Your task to perform on an android device: change notification settings in the gmail app Image 0: 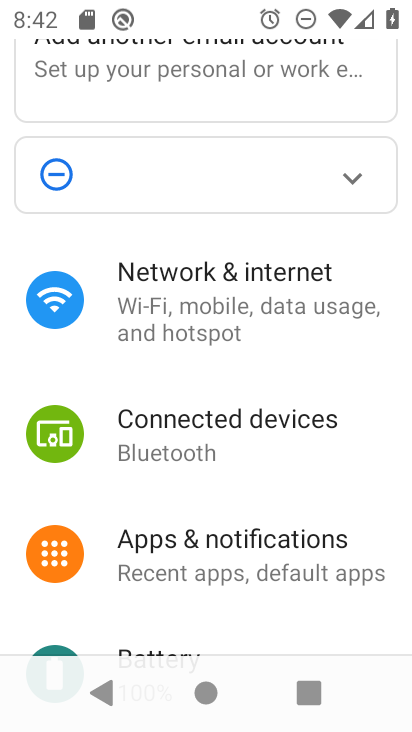
Step 0: press home button
Your task to perform on an android device: change notification settings in the gmail app Image 1: 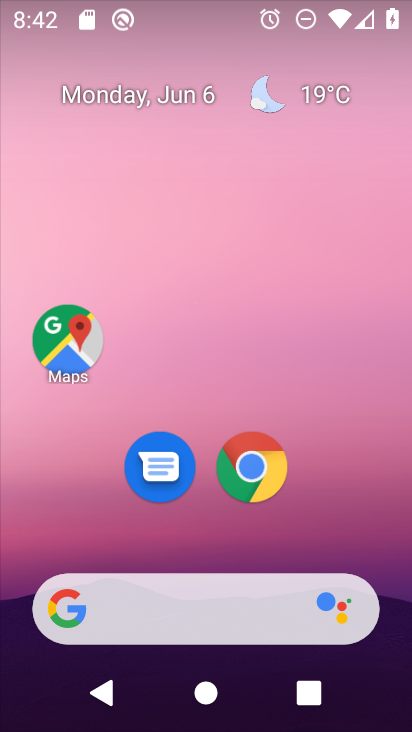
Step 1: drag from (370, 548) to (373, 196)
Your task to perform on an android device: change notification settings in the gmail app Image 2: 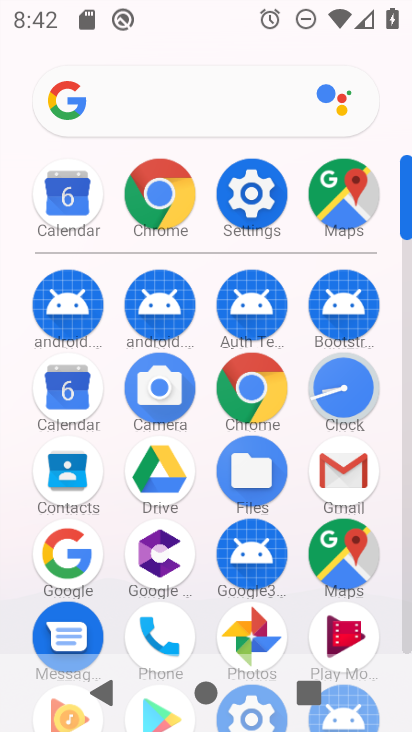
Step 2: click (358, 472)
Your task to perform on an android device: change notification settings in the gmail app Image 3: 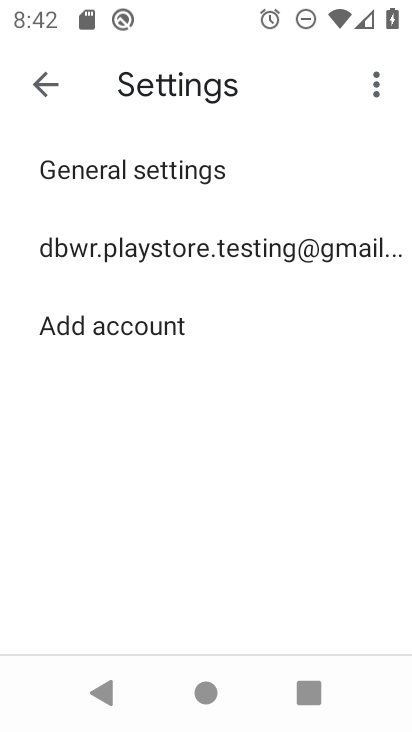
Step 3: click (227, 251)
Your task to perform on an android device: change notification settings in the gmail app Image 4: 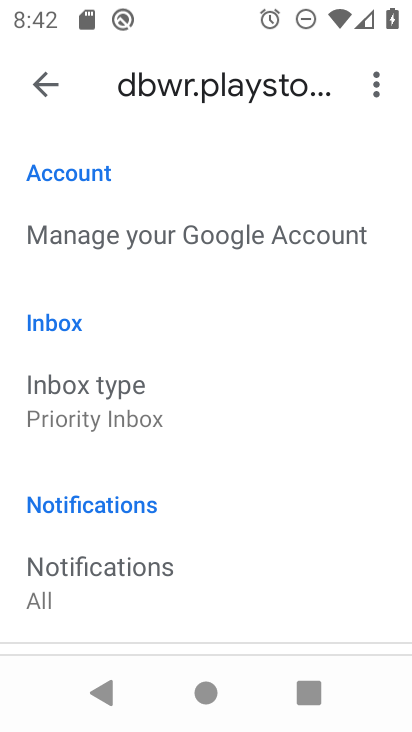
Step 4: drag from (316, 502) to (321, 416)
Your task to perform on an android device: change notification settings in the gmail app Image 5: 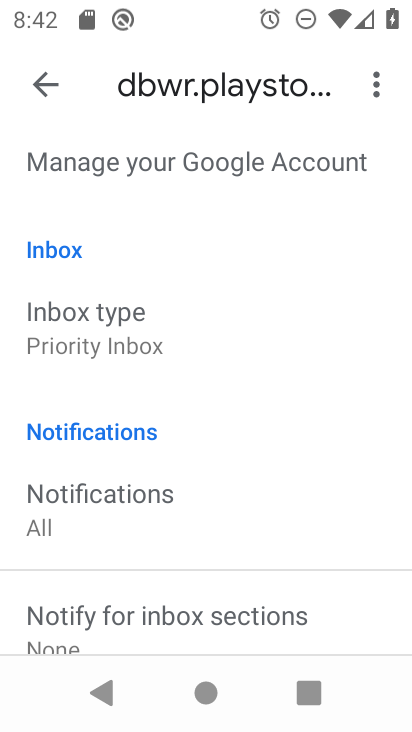
Step 5: drag from (342, 576) to (343, 466)
Your task to perform on an android device: change notification settings in the gmail app Image 6: 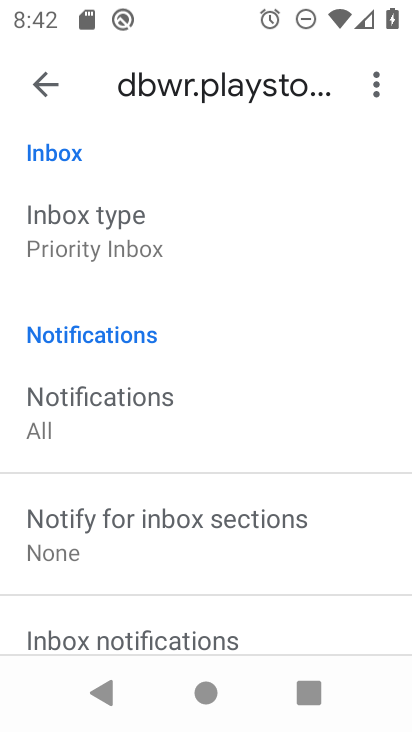
Step 6: drag from (349, 543) to (336, 419)
Your task to perform on an android device: change notification settings in the gmail app Image 7: 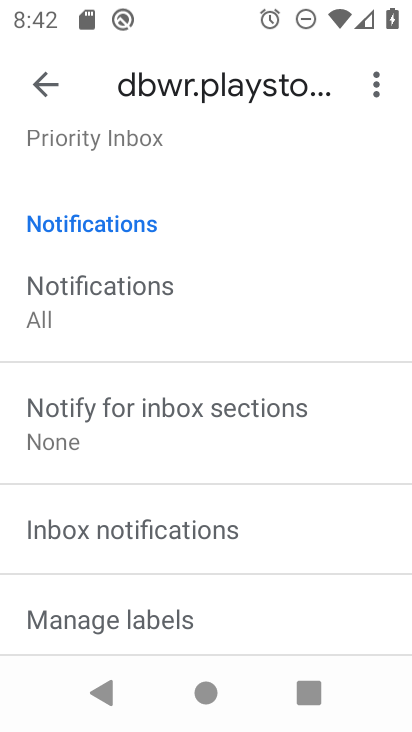
Step 7: drag from (320, 463) to (334, 386)
Your task to perform on an android device: change notification settings in the gmail app Image 8: 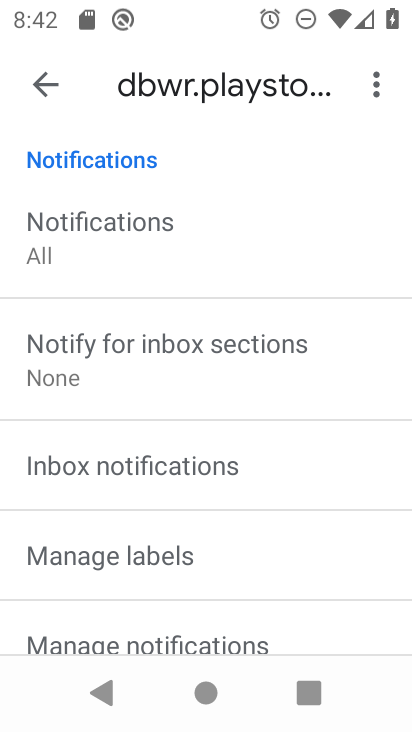
Step 8: drag from (331, 494) to (324, 369)
Your task to perform on an android device: change notification settings in the gmail app Image 9: 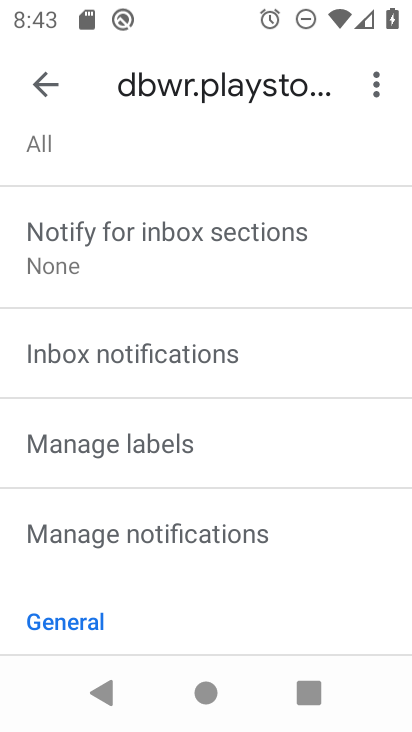
Step 9: click (248, 539)
Your task to perform on an android device: change notification settings in the gmail app Image 10: 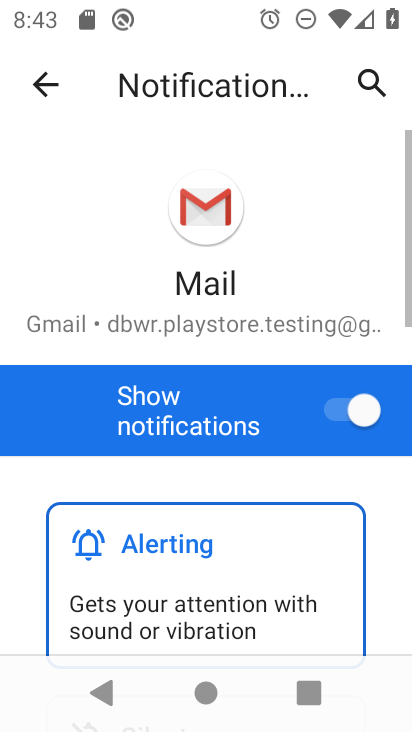
Step 10: click (365, 411)
Your task to perform on an android device: change notification settings in the gmail app Image 11: 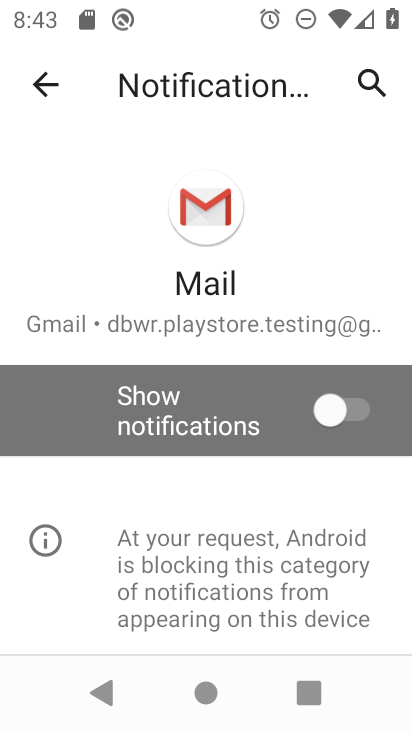
Step 11: task complete